Your task to perform on an android device: set the stopwatch Image 0: 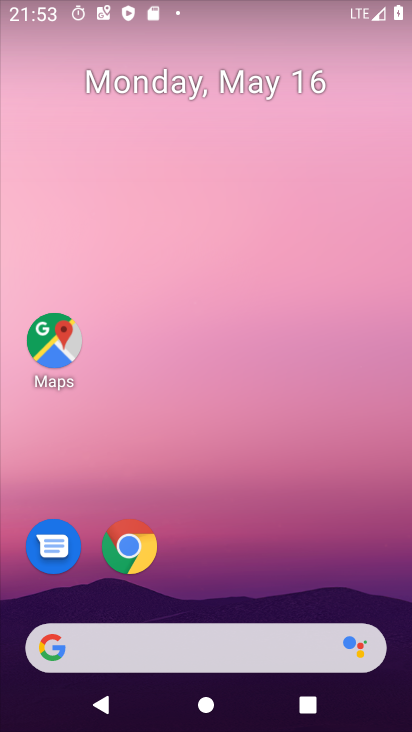
Step 0: drag from (215, 653) to (259, 164)
Your task to perform on an android device: set the stopwatch Image 1: 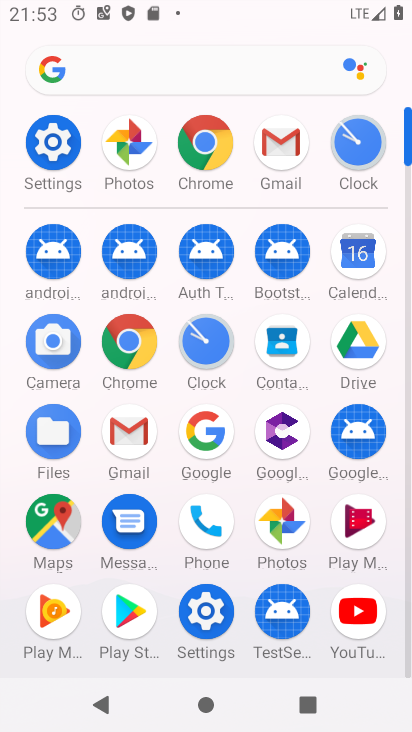
Step 1: click (352, 163)
Your task to perform on an android device: set the stopwatch Image 2: 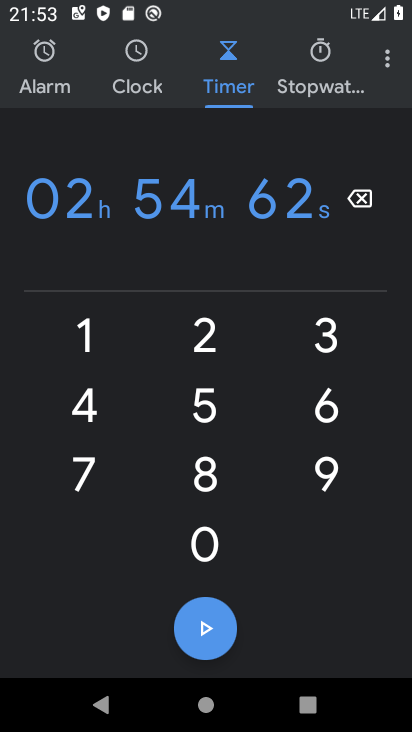
Step 2: click (303, 74)
Your task to perform on an android device: set the stopwatch Image 3: 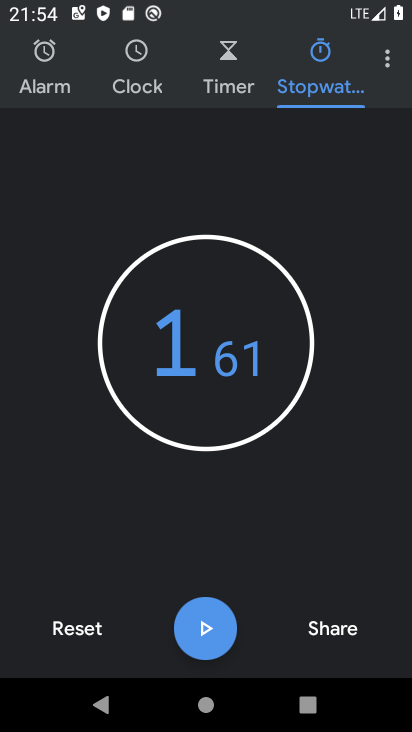
Step 3: task complete